Your task to perform on an android device: set default search engine in the chrome app Image 0: 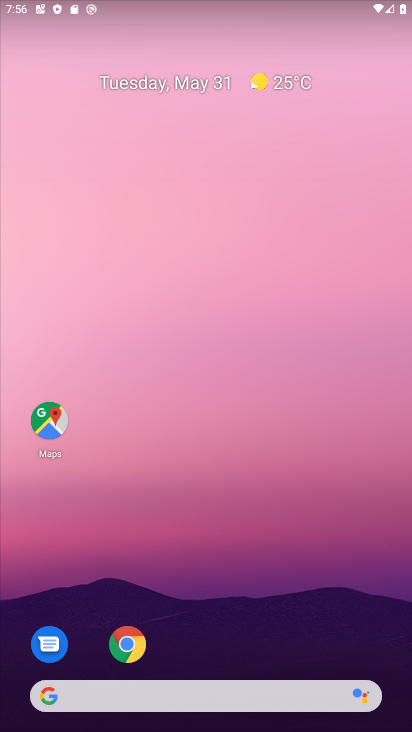
Step 0: drag from (253, 708) to (268, 123)
Your task to perform on an android device: set default search engine in the chrome app Image 1: 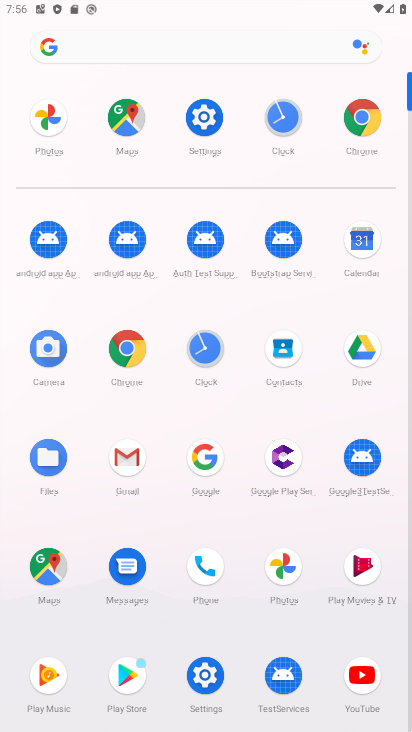
Step 1: click (359, 118)
Your task to perform on an android device: set default search engine in the chrome app Image 2: 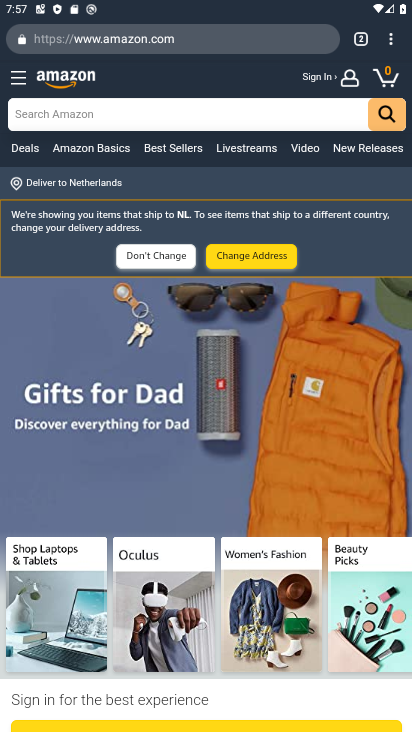
Step 2: click (386, 30)
Your task to perform on an android device: set default search engine in the chrome app Image 3: 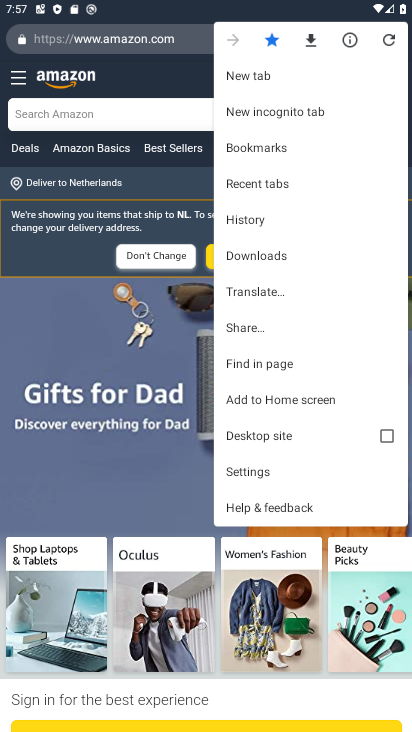
Step 3: click (257, 468)
Your task to perform on an android device: set default search engine in the chrome app Image 4: 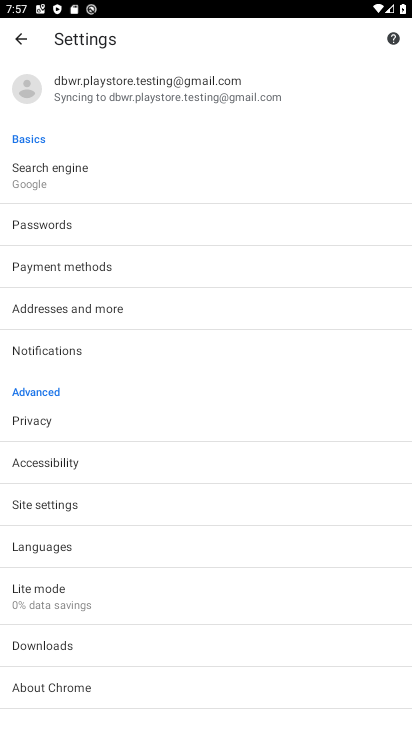
Step 4: click (61, 169)
Your task to perform on an android device: set default search engine in the chrome app Image 5: 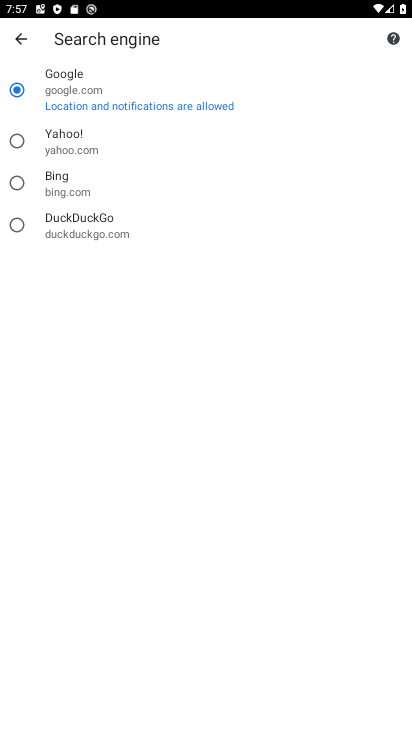
Step 5: task complete